Your task to perform on an android device: check battery use Image 0: 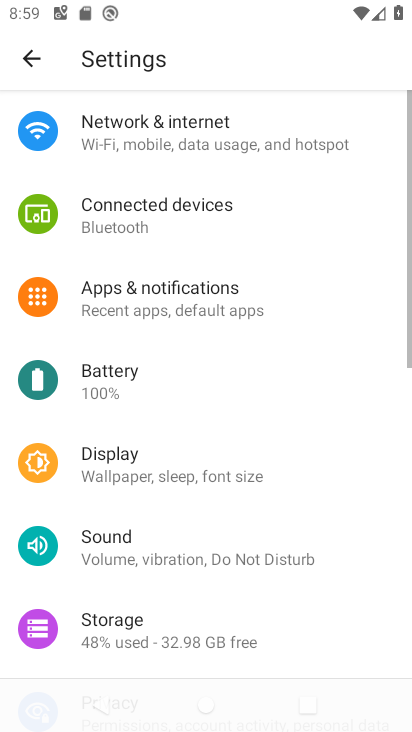
Step 0: drag from (249, 686) to (197, 112)
Your task to perform on an android device: check battery use Image 1: 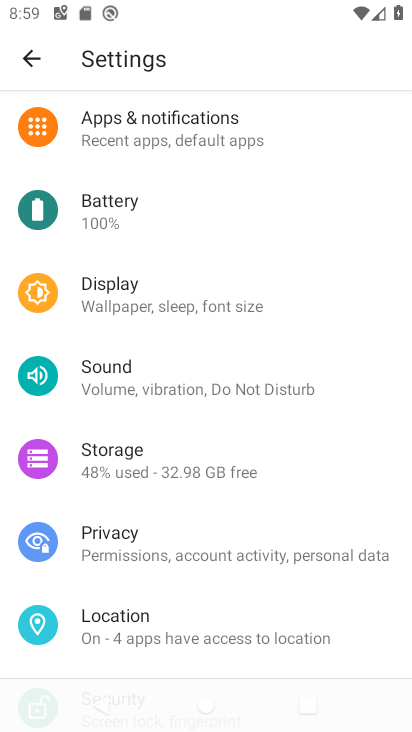
Step 1: click (95, 210)
Your task to perform on an android device: check battery use Image 2: 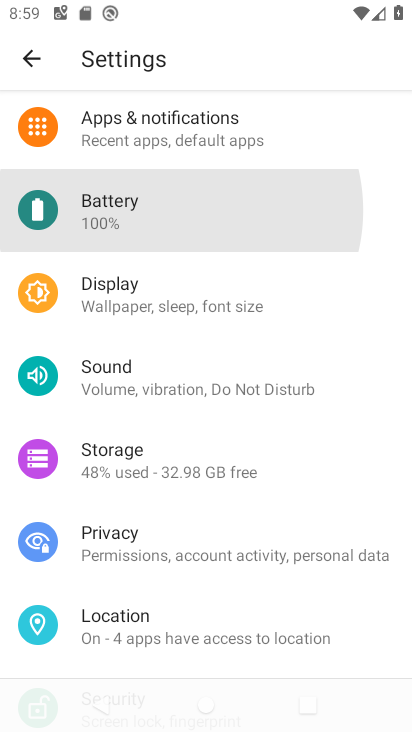
Step 2: click (95, 210)
Your task to perform on an android device: check battery use Image 3: 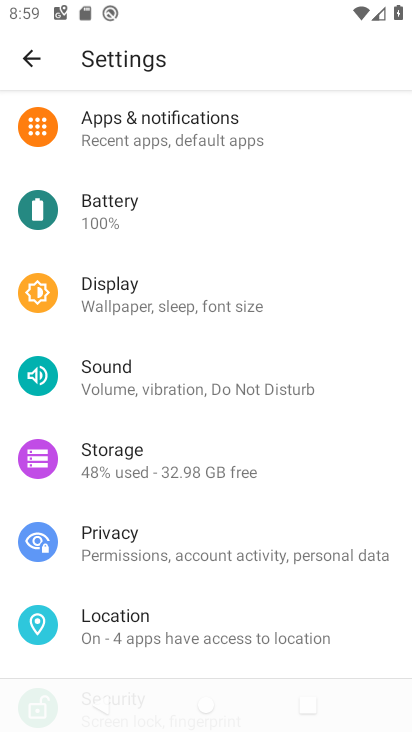
Step 3: click (95, 210)
Your task to perform on an android device: check battery use Image 4: 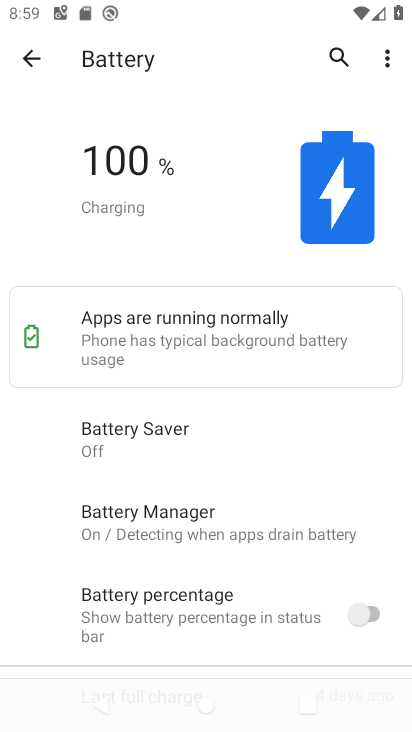
Step 4: task complete